Your task to perform on an android device: Open Amazon Image 0: 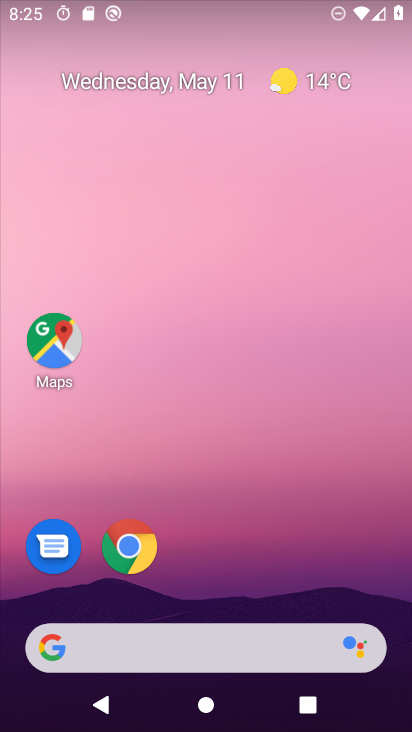
Step 0: click (139, 548)
Your task to perform on an android device: Open Amazon Image 1: 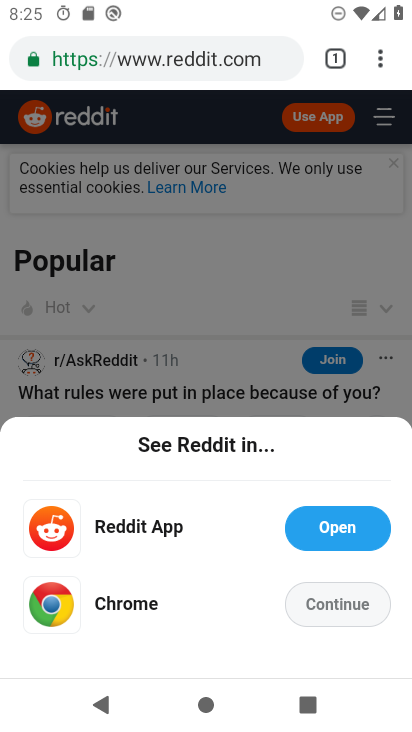
Step 1: click (154, 66)
Your task to perform on an android device: Open Amazon Image 2: 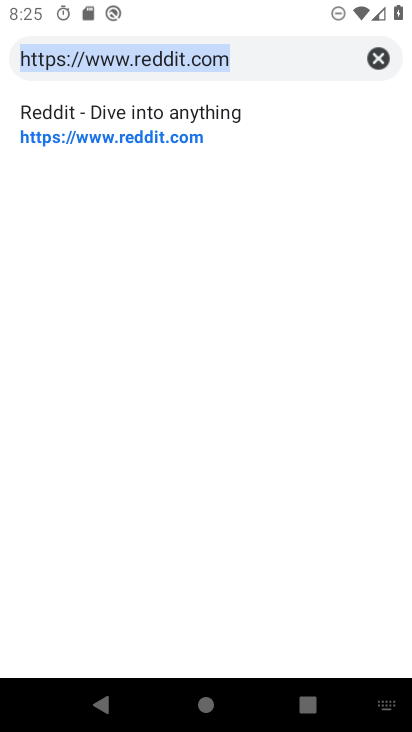
Step 2: type "amazon"
Your task to perform on an android device: Open Amazon Image 3: 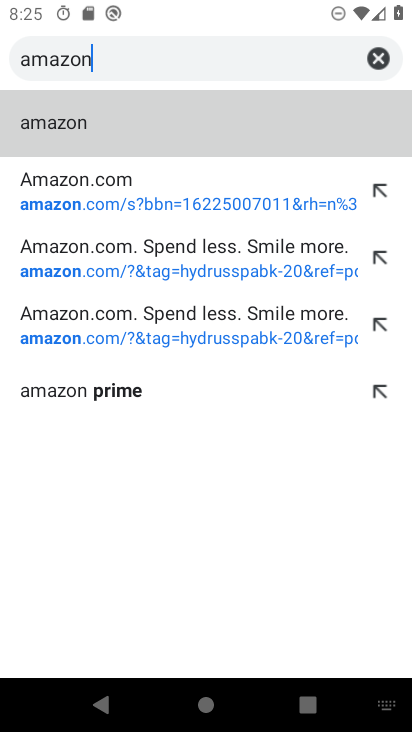
Step 3: click (244, 214)
Your task to perform on an android device: Open Amazon Image 4: 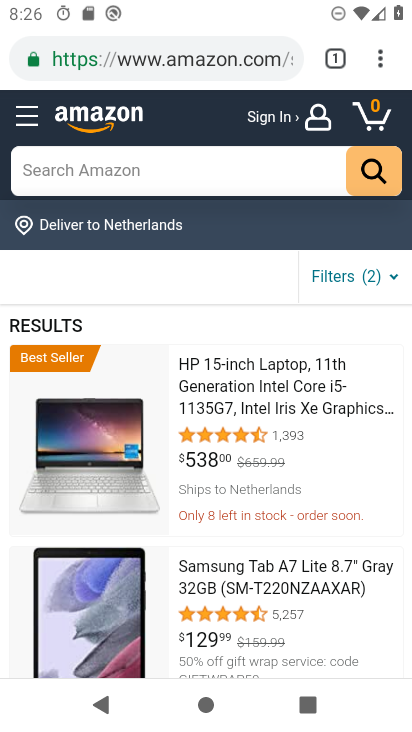
Step 4: task complete